Your task to perform on an android device: toggle sleep mode Image 0: 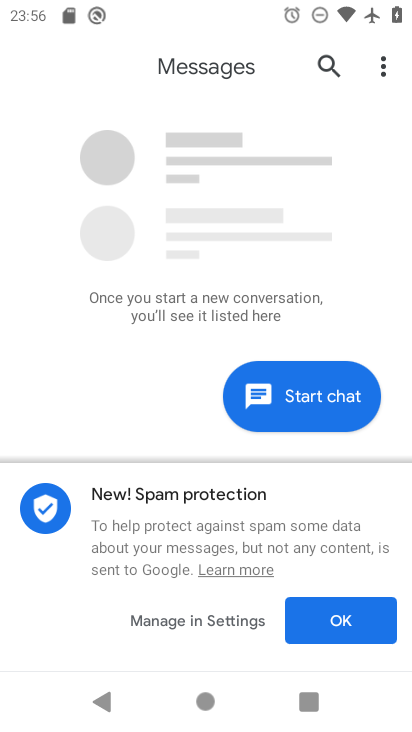
Step 0: press home button
Your task to perform on an android device: toggle sleep mode Image 1: 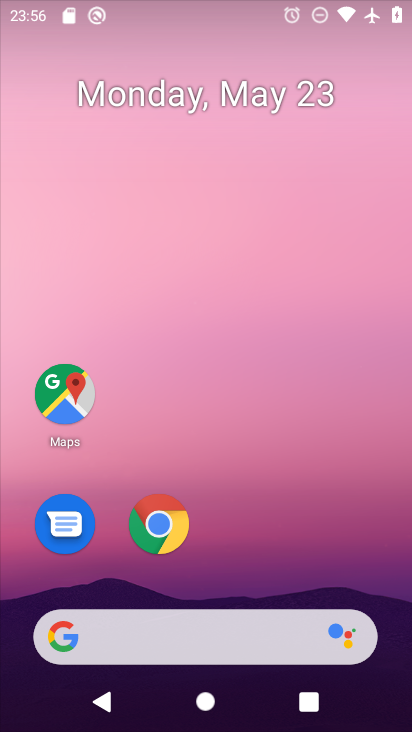
Step 1: drag from (217, 566) to (217, 156)
Your task to perform on an android device: toggle sleep mode Image 2: 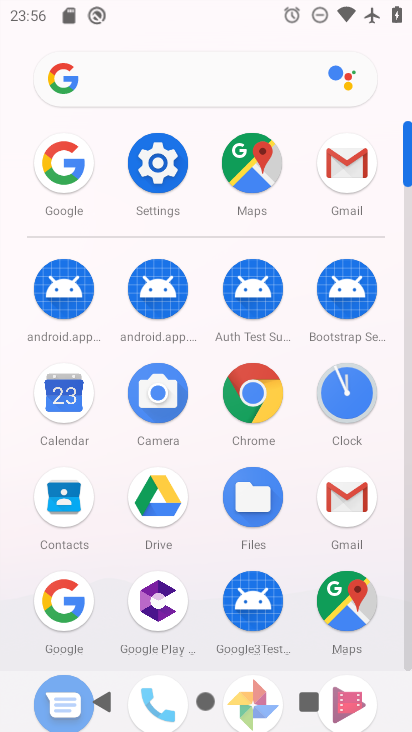
Step 2: click (164, 178)
Your task to perform on an android device: toggle sleep mode Image 3: 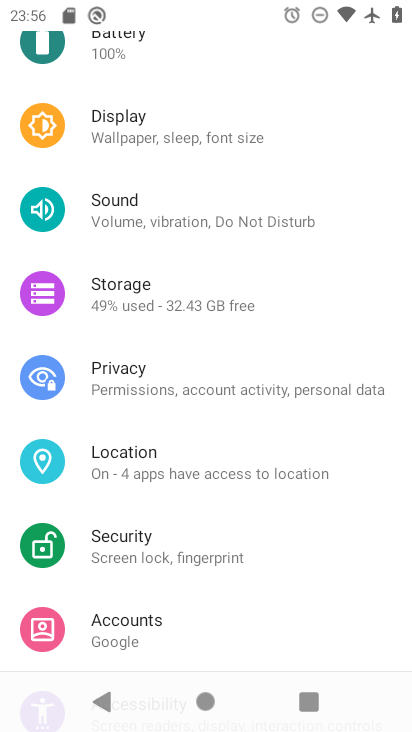
Step 3: drag from (188, 174) to (252, 569)
Your task to perform on an android device: toggle sleep mode Image 4: 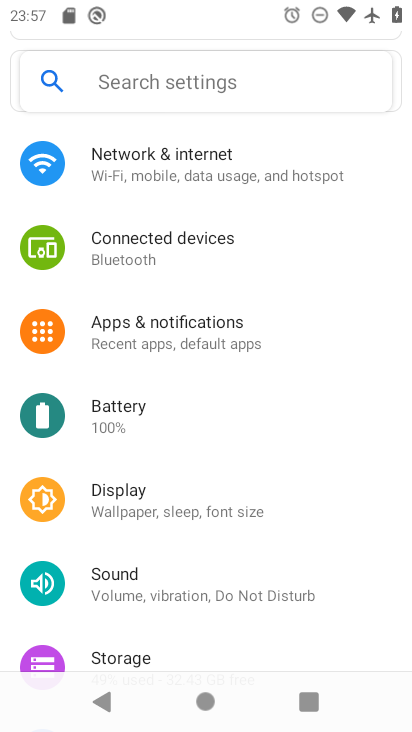
Step 4: drag from (230, 273) to (250, 470)
Your task to perform on an android device: toggle sleep mode Image 5: 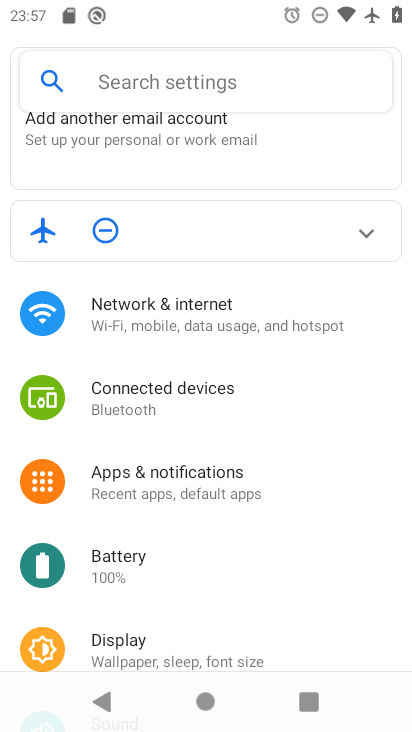
Step 5: click (211, 620)
Your task to perform on an android device: toggle sleep mode Image 6: 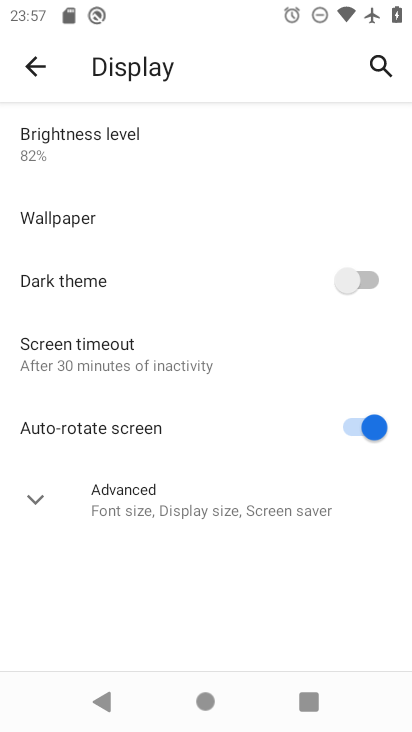
Step 6: click (186, 498)
Your task to perform on an android device: toggle sleep mode Image 7: 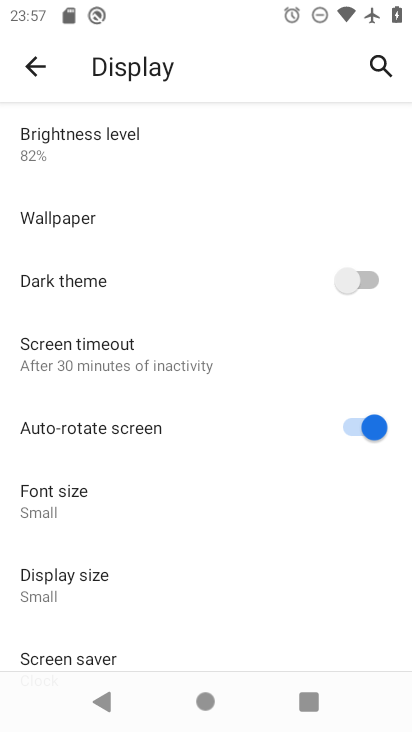
Step 7: click (127, 354)
Your task to perform on an android device: toggle sleep mode Image 8: 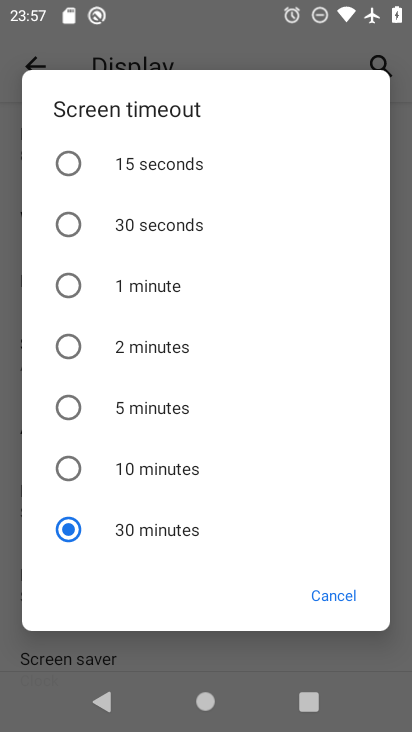
Step 8: click (127, 354)
Your task to perform on an android device: toggle sleep mode Image 9: 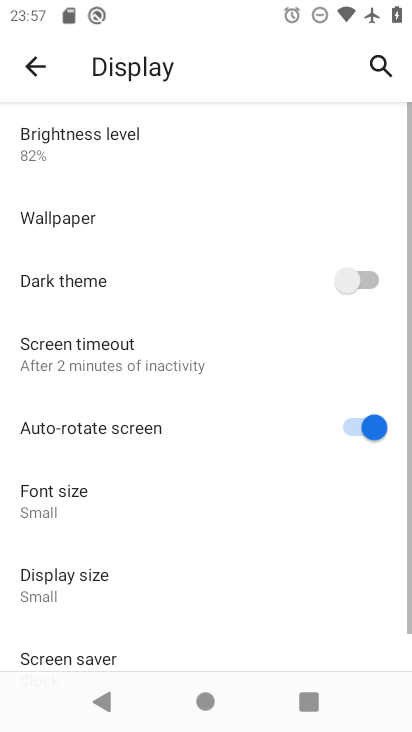
Step 9: task complete